Your task to perform on an android device: toggle notifications settings in the gmail app Image 0: 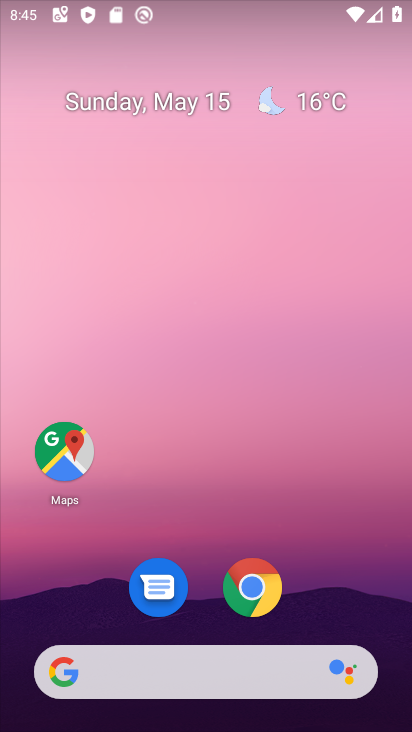
Step 0: drag from (349, 541) to (303, 9)
Your task to perform on an android device: toggle notifications settings in the gmail app Image 1: 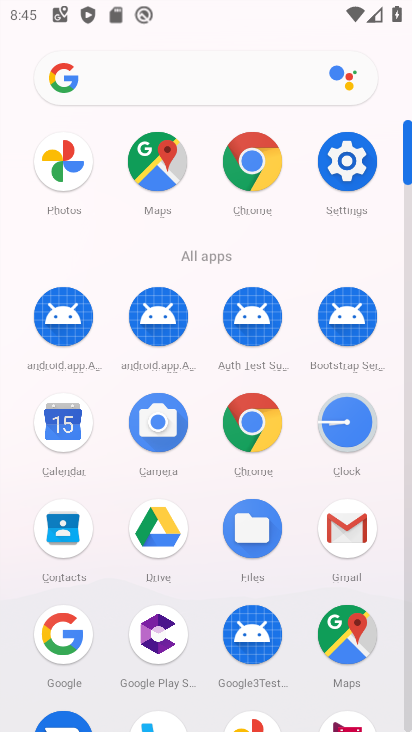
Step 1: click (353, 531)
Your task to perform on an android device: toggle notifications settings in the gmail app Image 2: 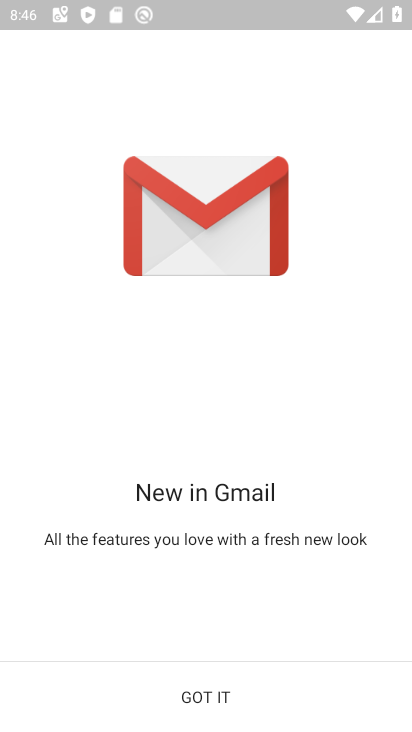
Step 2: click (212, 696)
Your task to perform on an android device: toggle notifications settings in the gmail app Image 3: 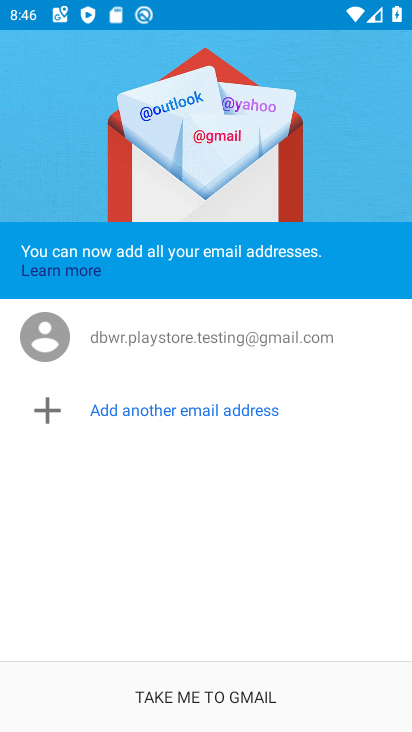
Step 3: click (318, 714)
Your task to perform on an android device: toggle notifications settings in the gmail app Image 4: 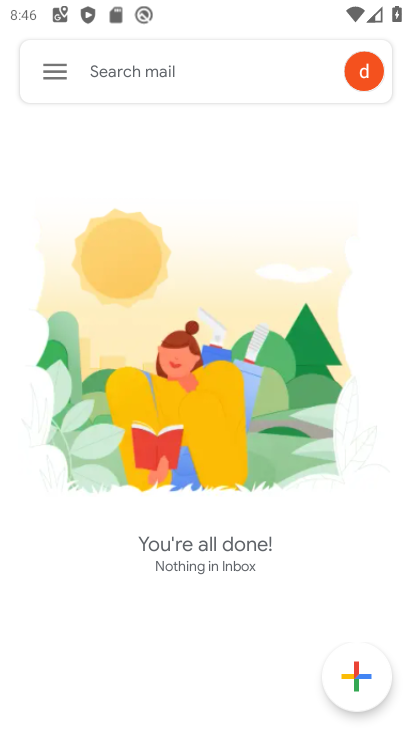
Step 4: click (53, 72)
Your task to perform on an android device: toggle notifications settings in the gmail app Image 5: 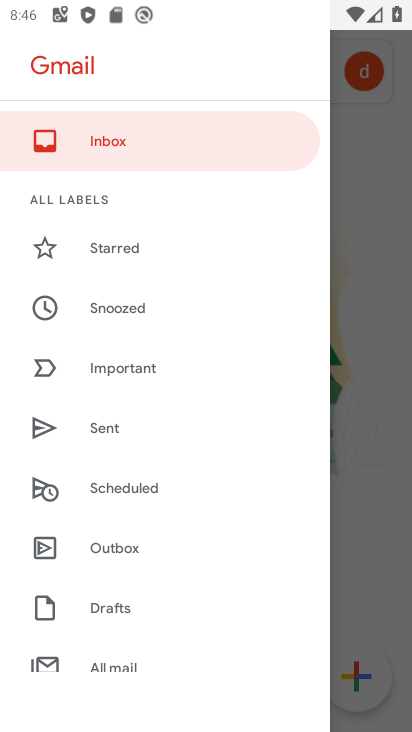
Step 5: drag from (171, 609) to (249, 33)
Your task to perform on an android device: toggle notifications settings in the gmail app Image 6: 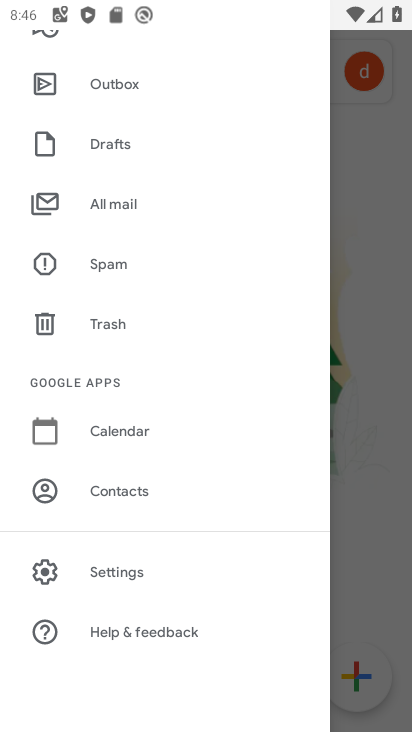
Step 6: click (124, 575)
Your task to perform on an android device: toggle notifications settings in the gmail app Image 7: 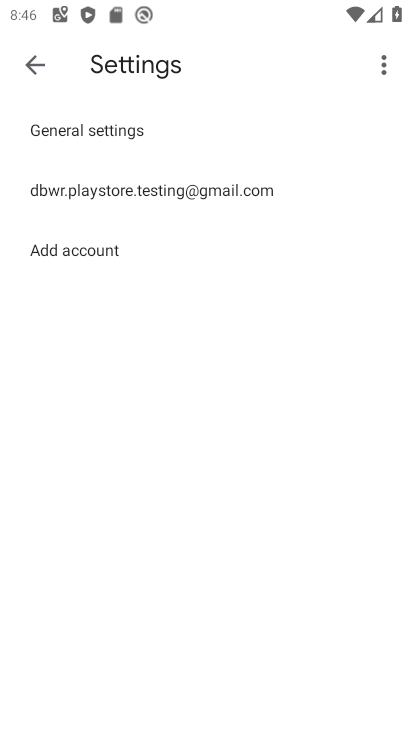
Step 7: click (61, 184)
Your task to perform on an android device: toggle notifications settings in the gmail app Image 8: 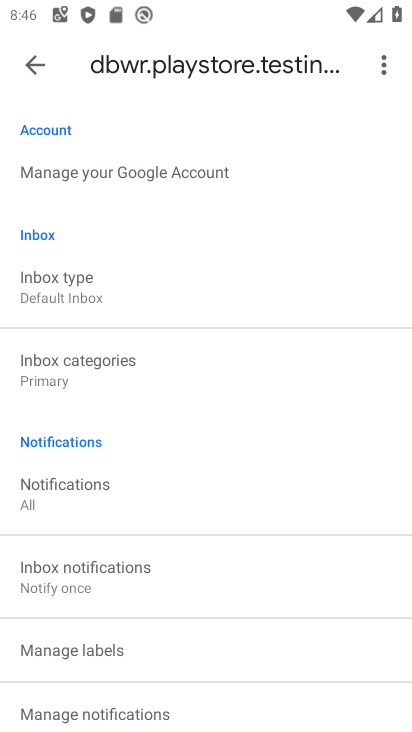
Step 8: click (153, 710)
Your task to perform on an android device: toggle notifications settings in the gmail app Image 9: 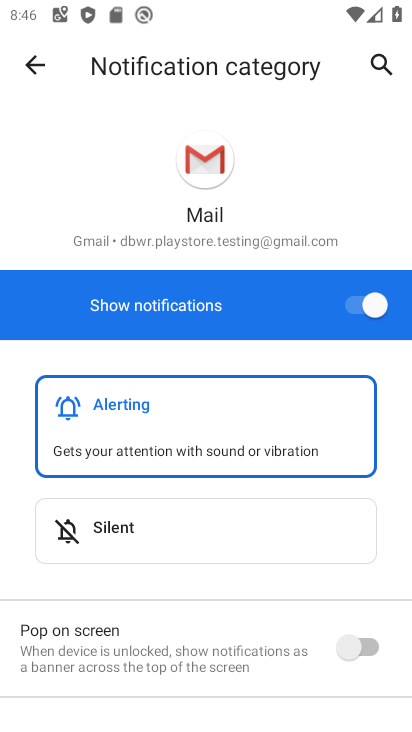
Step 9: click (377, 315)
Your task to perform on an android device: toggle notifications settings in the gmail app Image 10: 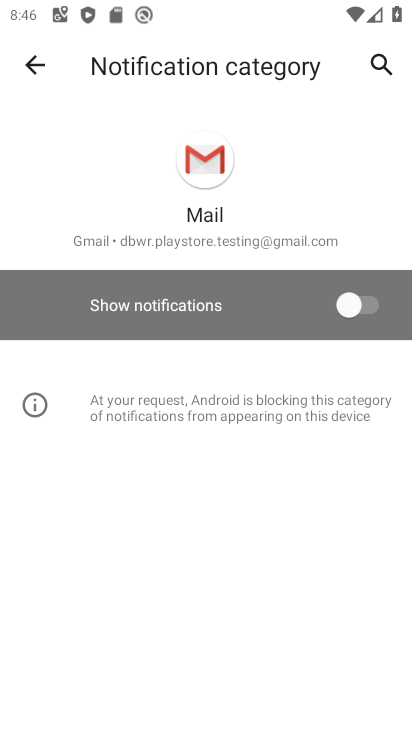
Step 10: task complete